Your task to perform on an android device: check android version Image 0: 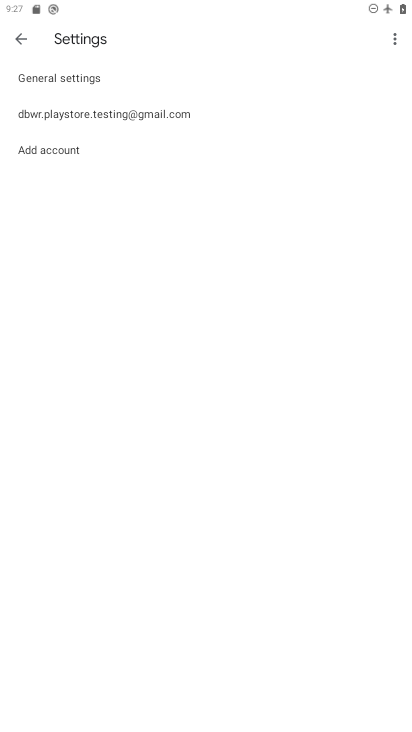
Step 0: task complete